Your task to perform on an android device: turn pop-ups on in chrome Image 0: 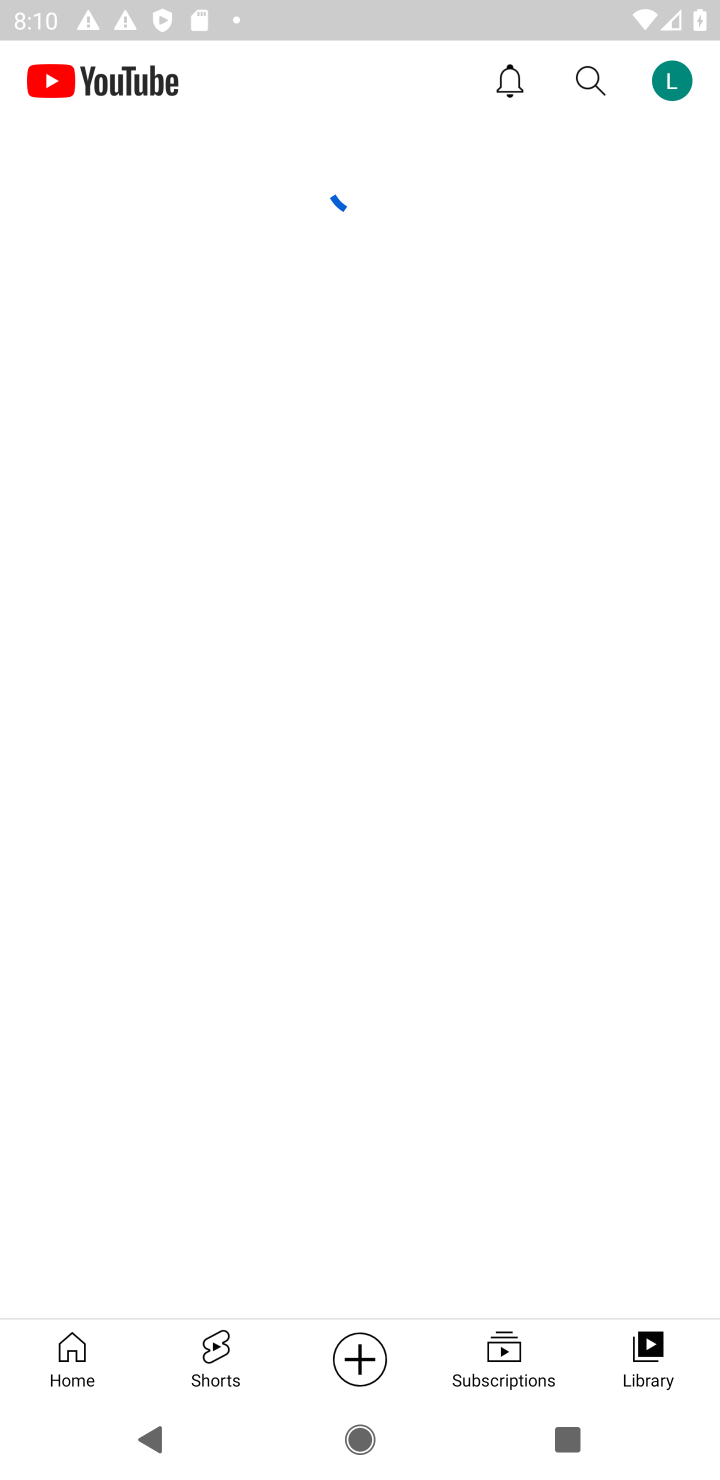
Step 0: press home button
Your task to perform on an android device: turn pop-ups on in chrome Image 1: 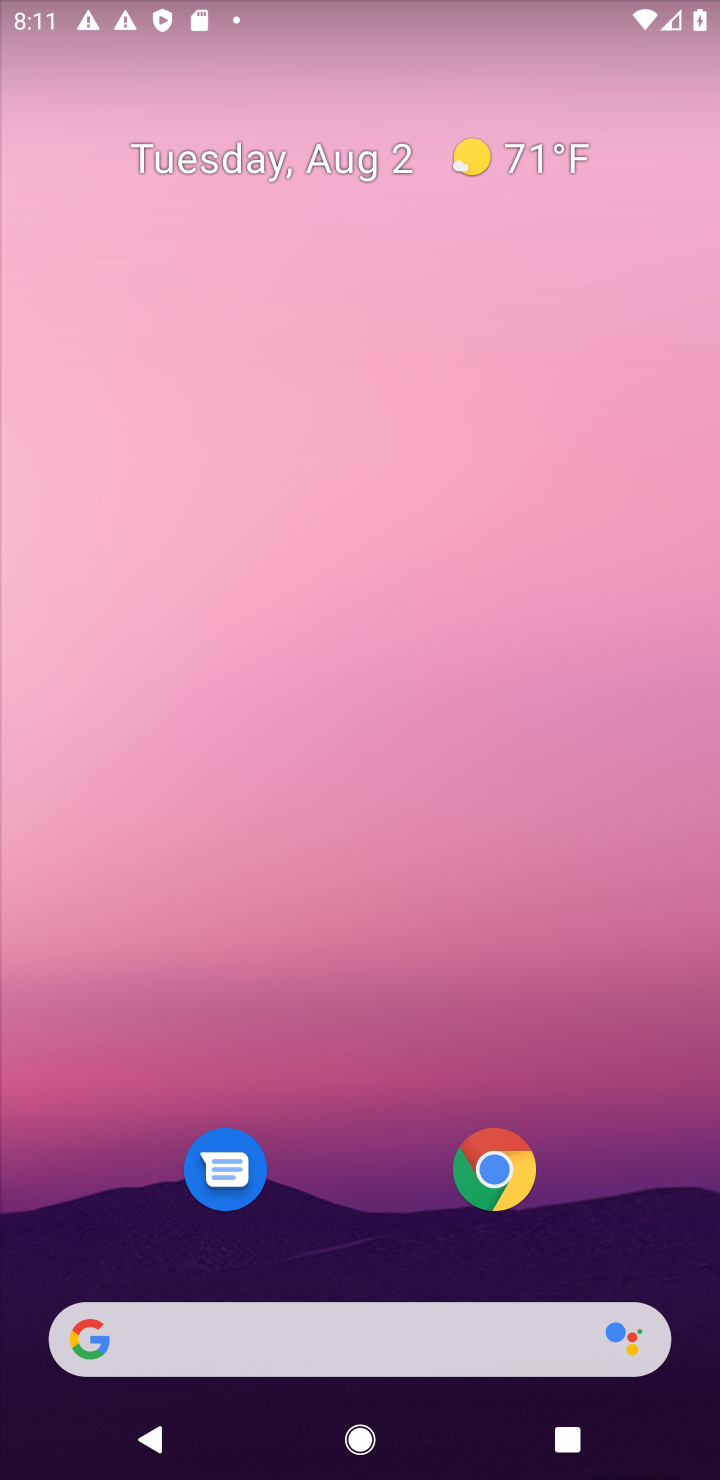
Step 1: click (496, 1147)
Your task to perform on an android device: turn pop-ups on in chrome Image 2: 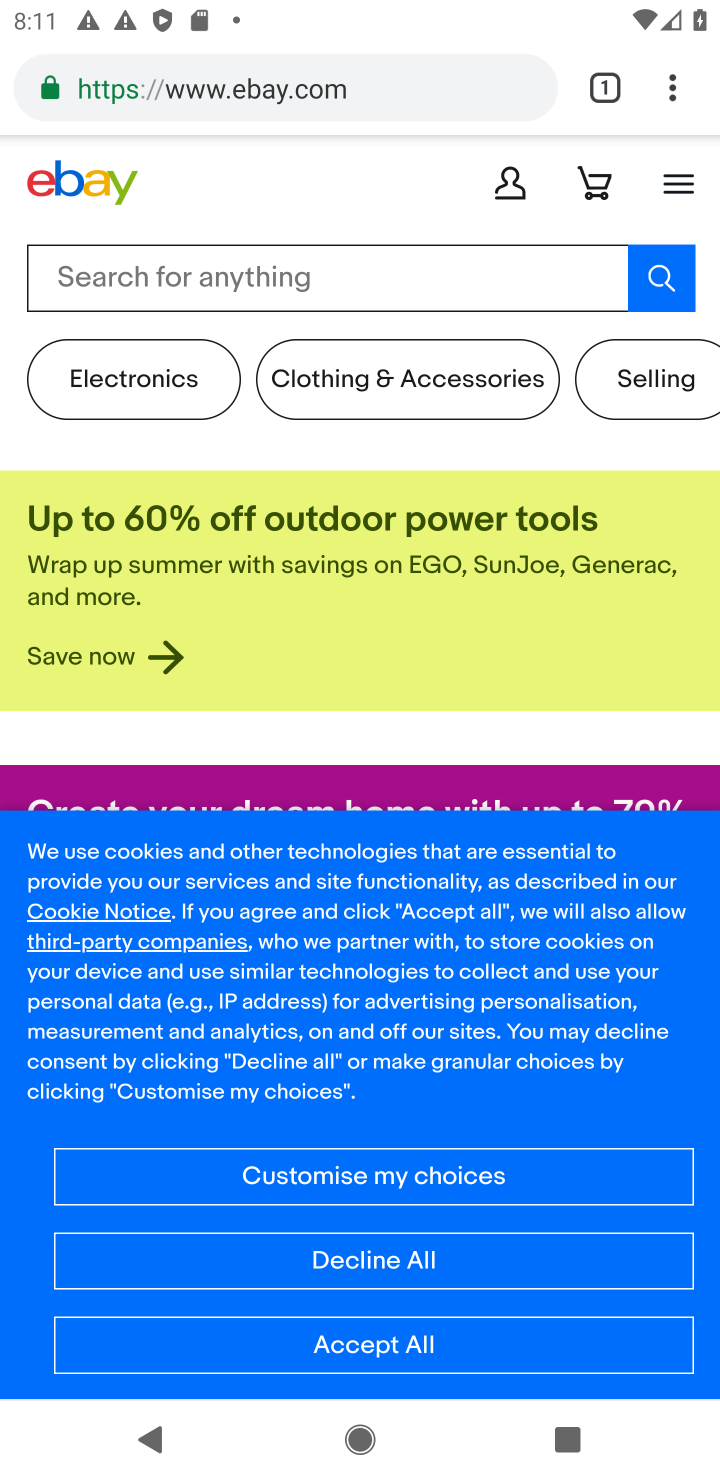
Step 2: press back button
Your task to perform on an android device: turn pop-ups on in chrome Image 3: 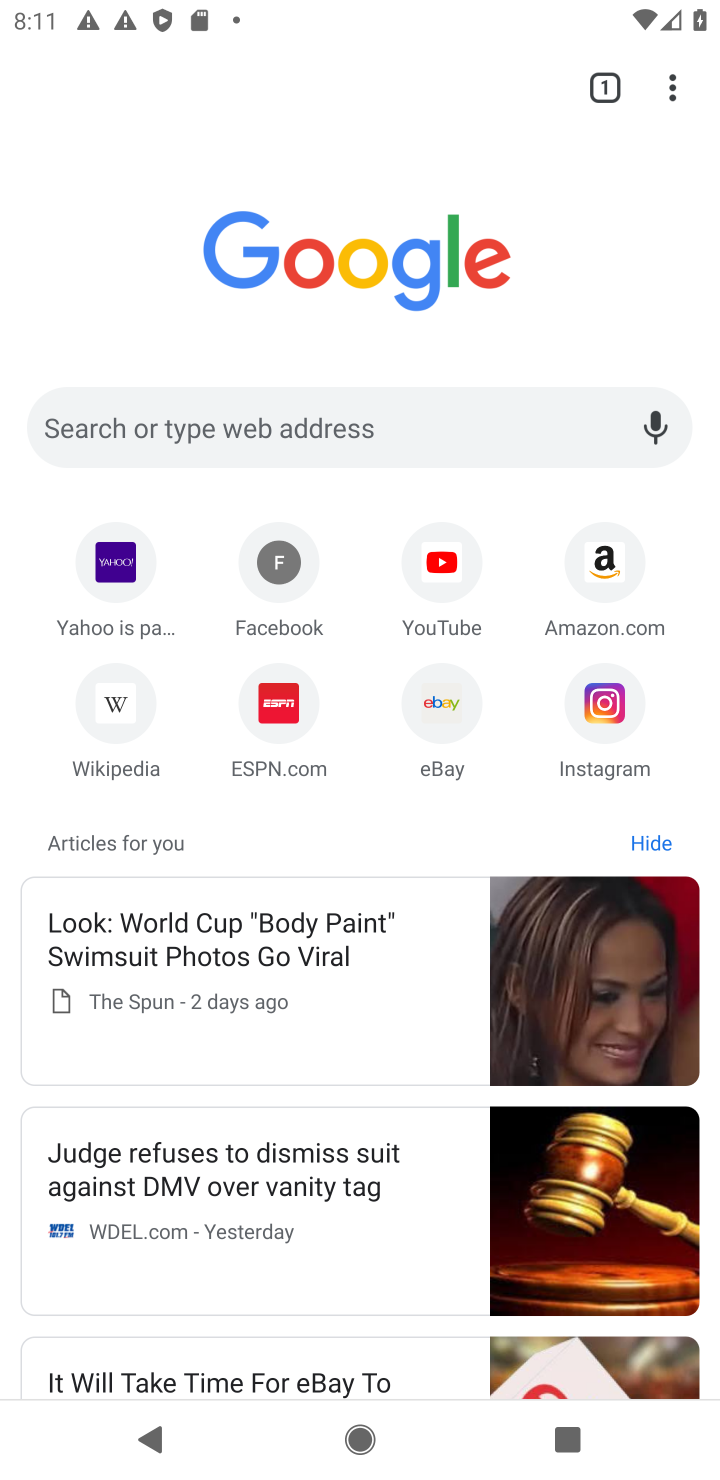
Step 3: click (666, 88)
Your task to perform on an android device: turn pop-ups on in chrome Image 4: 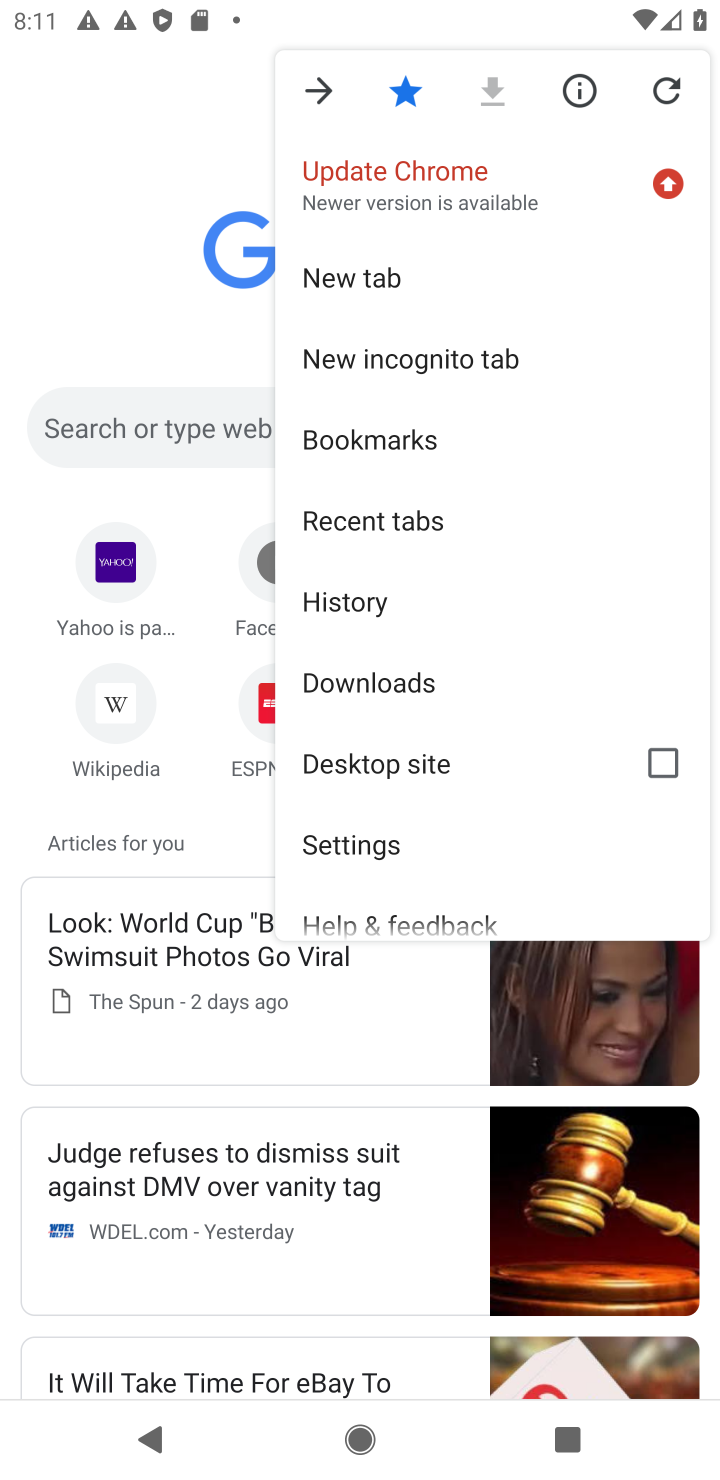
Step 4: click (383, 844)
Your task to perform on an android device: turn pop-ups on in chrome Image 5: 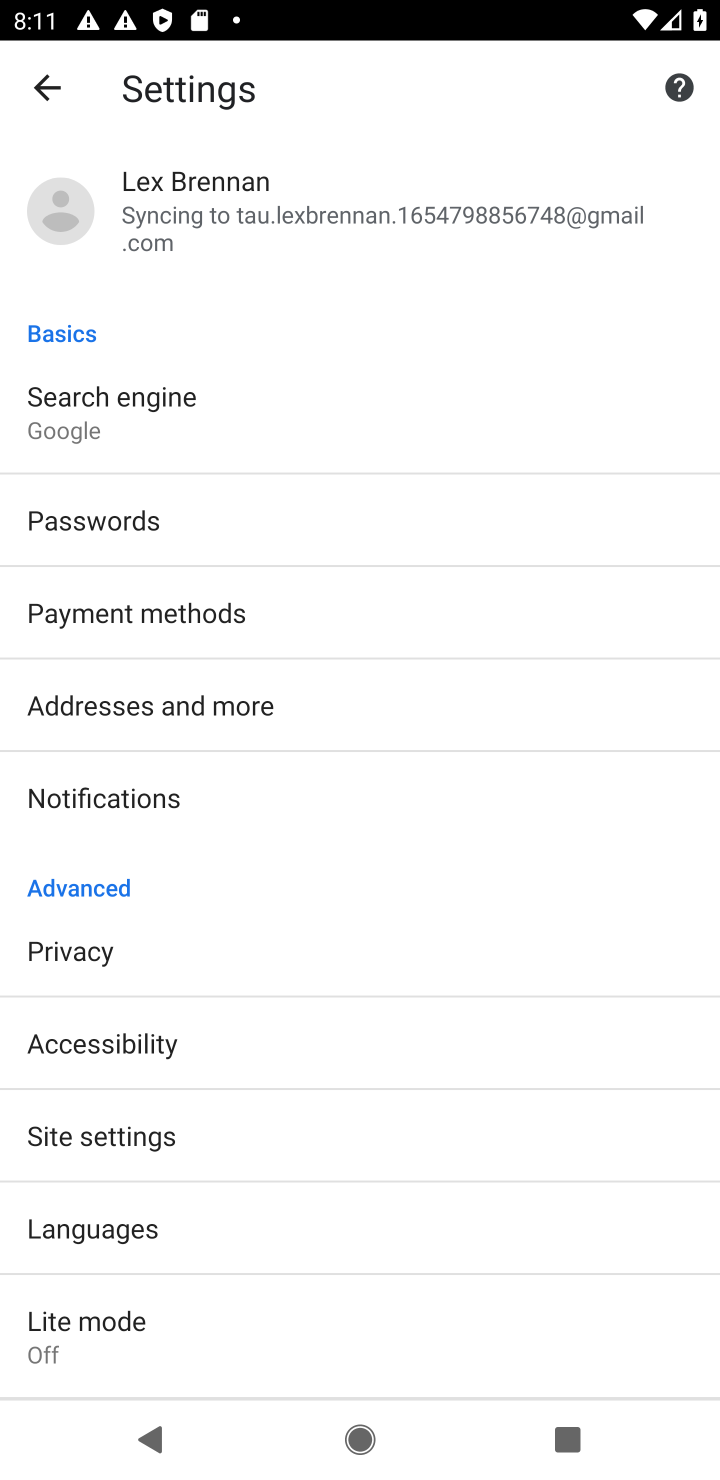
Step 5: click (167, 1135)
Your task to perform on an android device: turn pop-ups on in chrome Image 6: 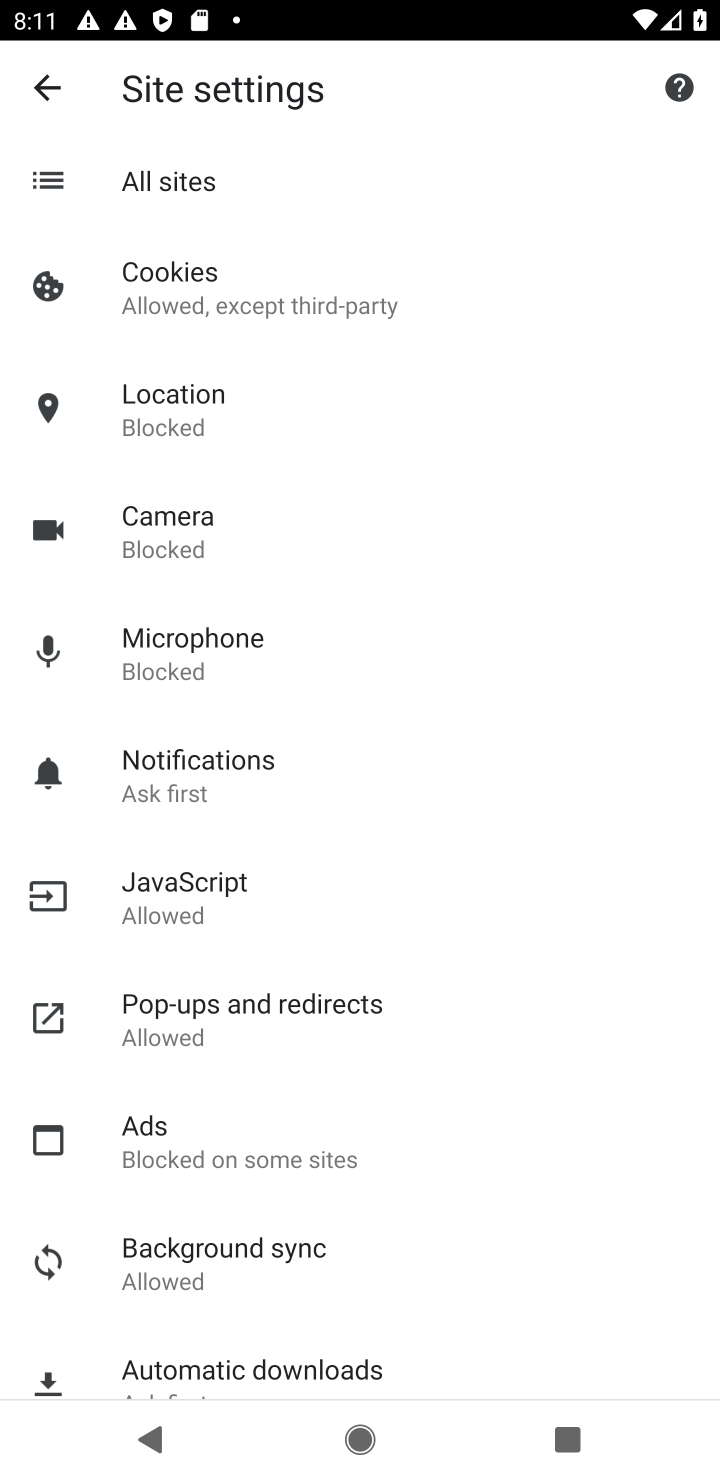
Step 6: click (263, 1024)
Your task to perform on an android device: turn pop-ups on in chrome Image 7: 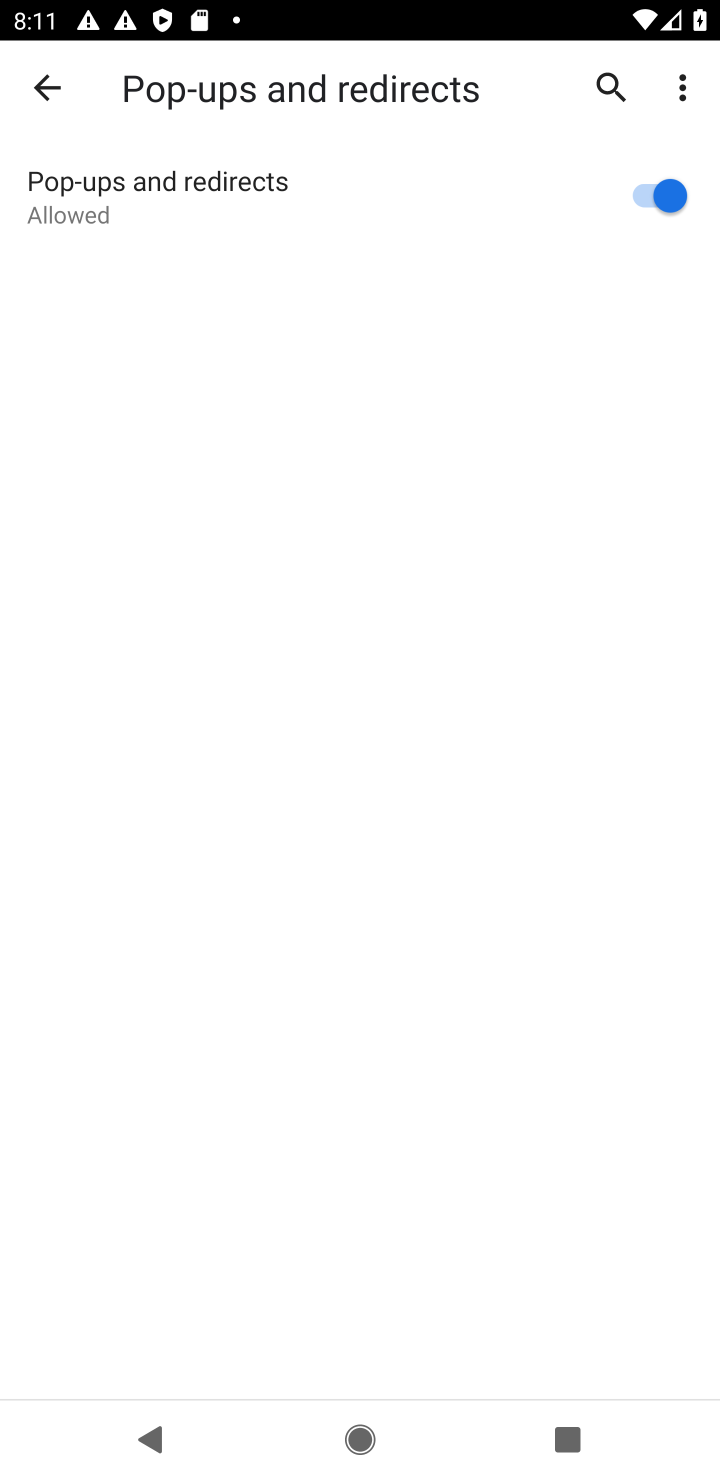
Step 7: task complete